Your task to perform on an android device: Open calendar and show me the third week of next month Image 0: 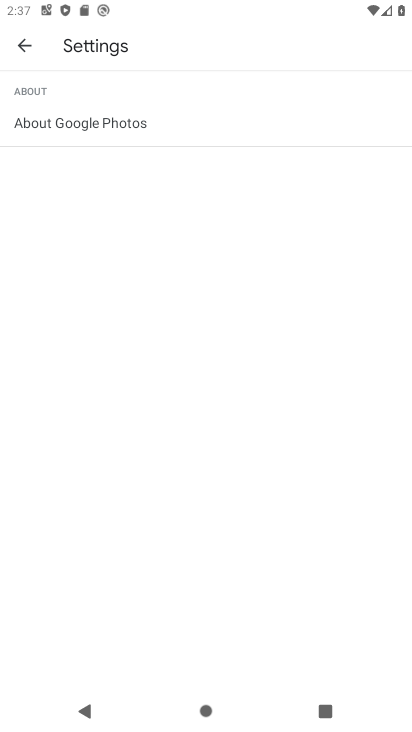
Step 0: press home button
Your task to perform on an android device: Open calendar and show me the third week of next month Image 1: 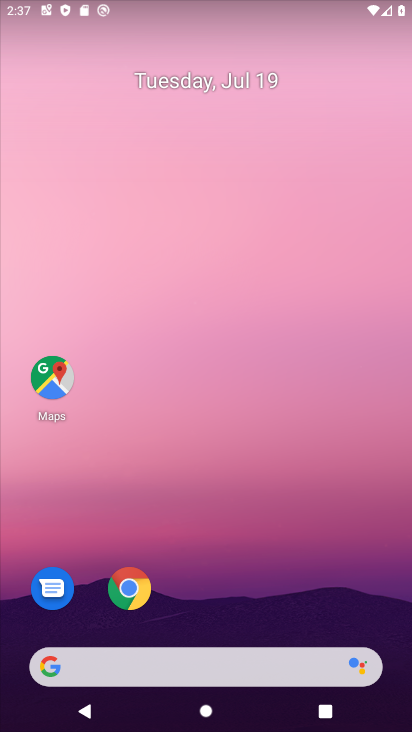
Step 1: drag from (167, 486) to (145, 3)
Your task to perform on an android device: Open calendar and show me the third week of next month Image 2: 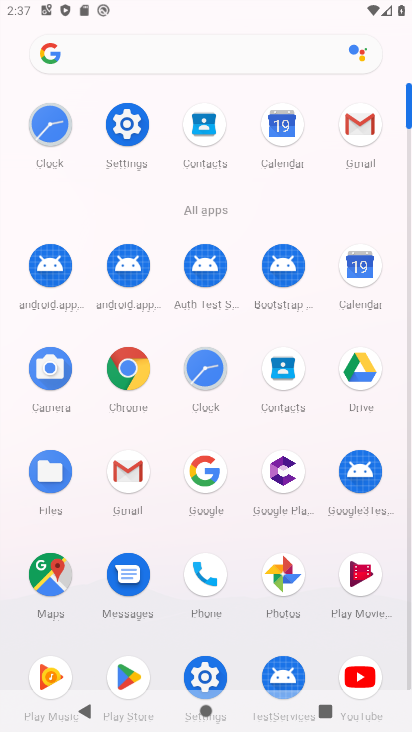
Step 2: click (352, 299)
Your task to perform on an android device: Open calendar and show me the third week of next month Image 3: 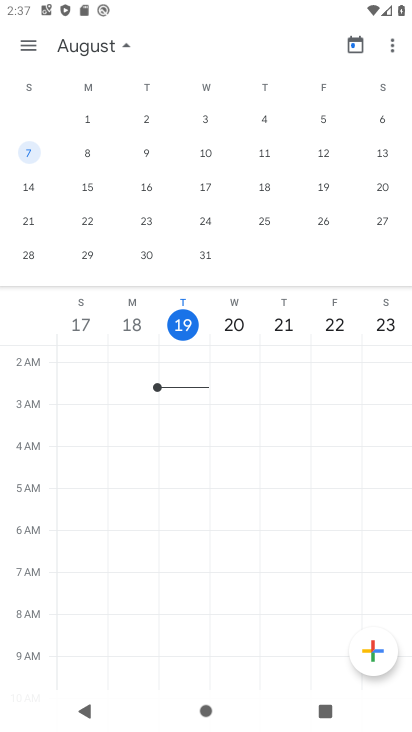
Step 3: click (31, 190)
Your task to perform on an android device: Open calendar and show me the third week of next month Image 4: 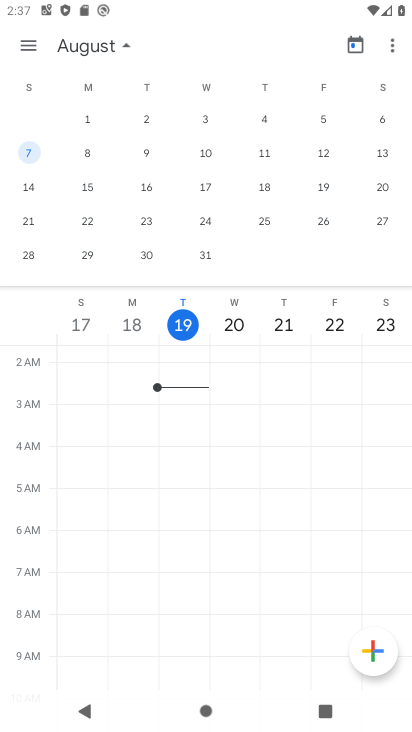
Step 4: click (31, 190)
Your task to perform on an android device: Open calendar and show me the third week of next month Image 5: 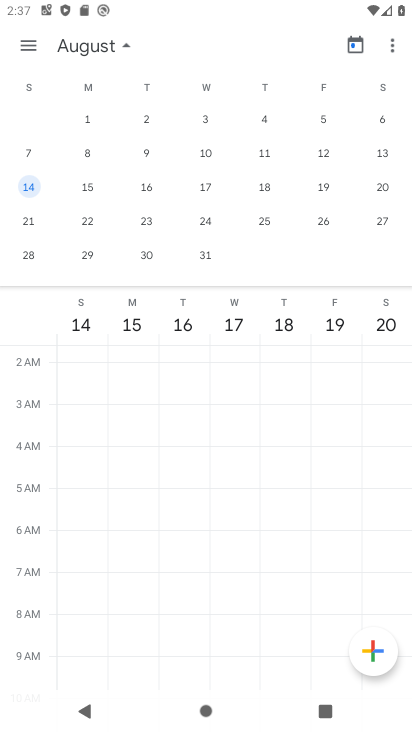
Step 5: task complete